Your task to perform on an android device: turn off notifications in google photos Image 0: 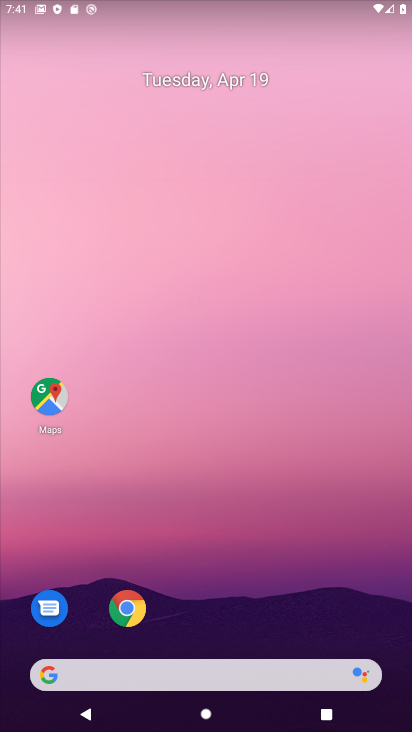
Step 0: click (395, 458)
Your task to perform on an android device: turn off notifications in google photos Image 1: 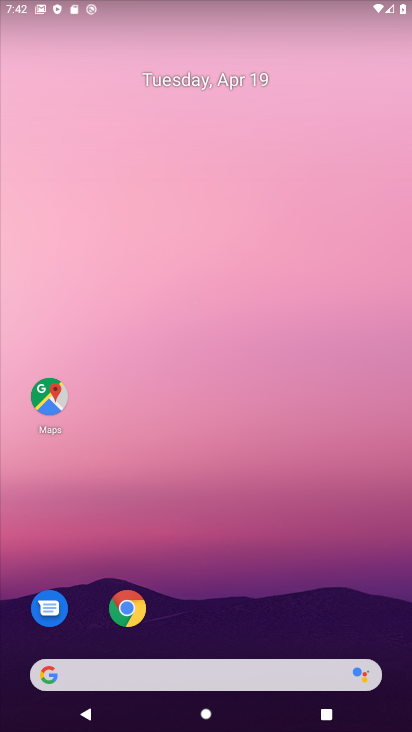
Step 1: drag from (328, 577) to (331, 245)
Your task to perform on an android device: turn off notifications in google photos Image 2: 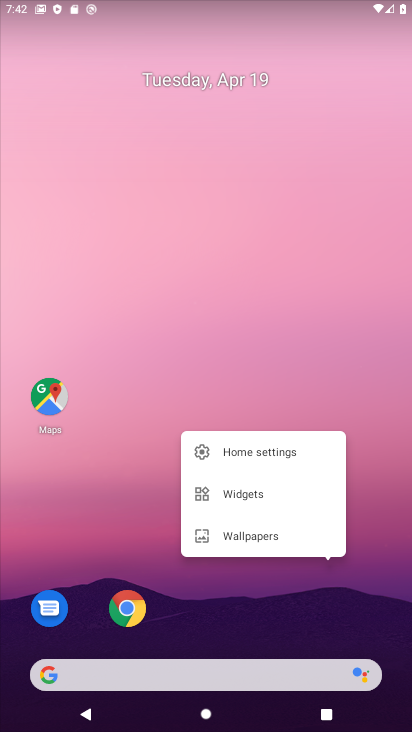
Step 2: drag from (147, 577) to (163, 303)
Your task to perform on an android device: turn off notifications in google photos Image 3: 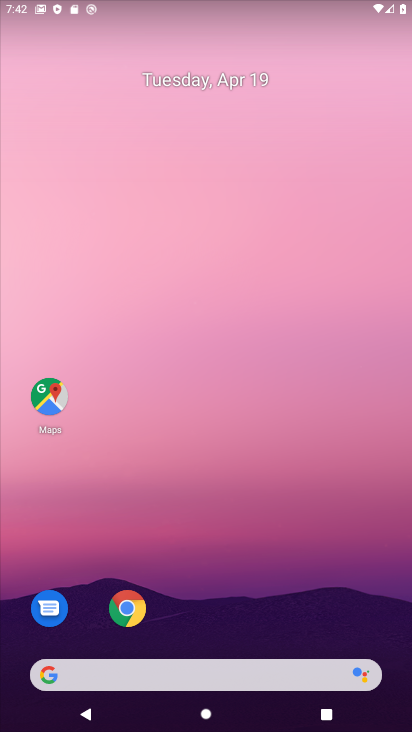
Step 3: drag from (257, 634) to (264, 155)
Your task to perform on an android device: turn off notifications in google photos Image 4: 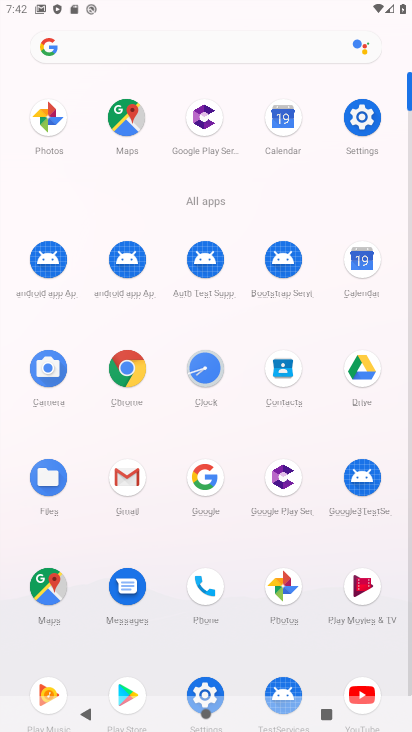
Step 4: click (264, 155)
Your task to perform on an android device: turn off notifications in google photos Image 5: 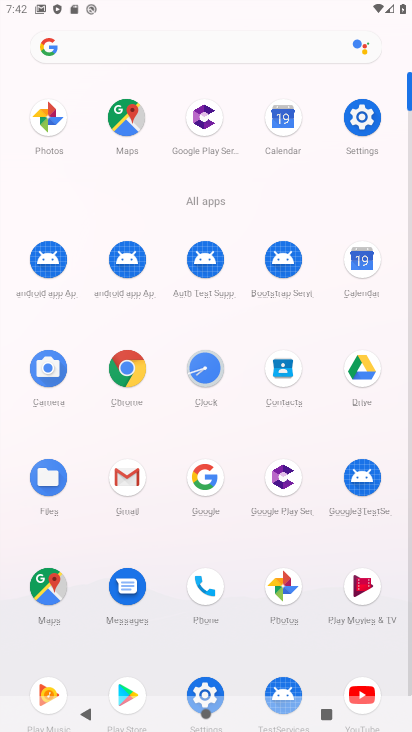
Step 5: click (264, 155)
Your task to perform on an android device: turn off notifications in google photos Image 6: 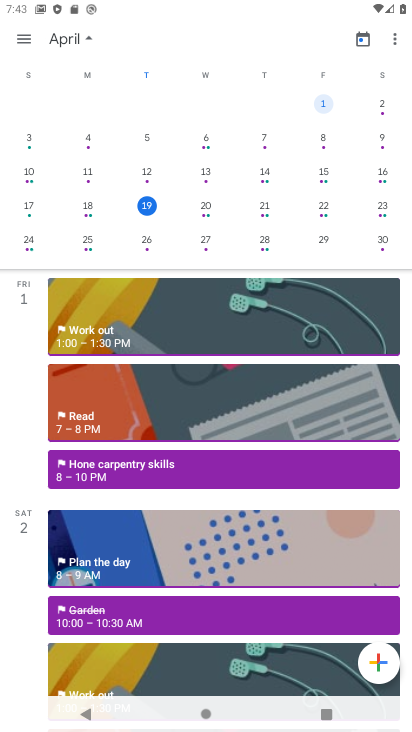
Step 6: press back button
Your task to perform on an android device: turn off notifications in google photos Image 7: 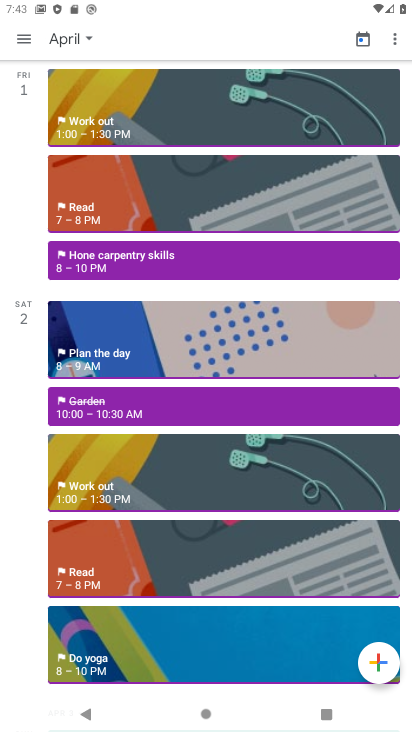
Step 7: press back button
Your task to perform on an android device: turn off notifications in google photos Image 8: 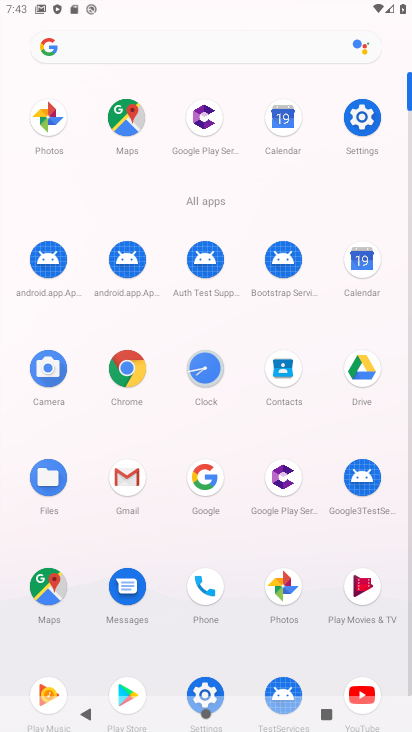
Step 8: click (58, 129)
Your task to perform on an android device: turn off notifications in google photos Image 9: 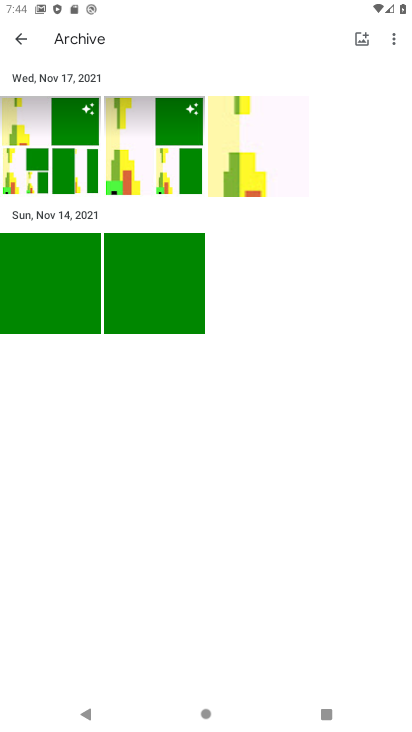
Step 9: click (24, 48)
Your task to perform on an android device: turn off notifications in google photos Image 10: 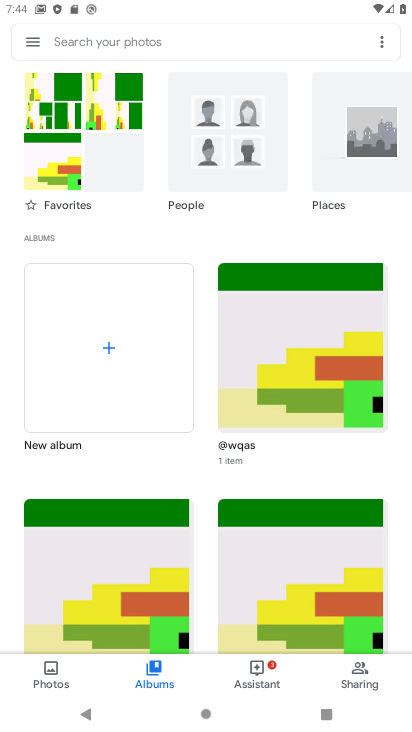
Step 10: click (34, 45)
Your task to perform on an android device: turn off notifications in google photos Image 11: 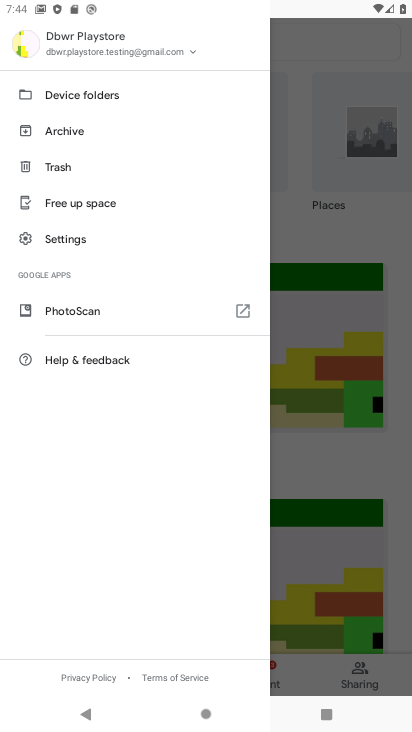
Step 11: click (62, 237)
Your task to perform on an android device: turn off notifications in google photos Image 12: 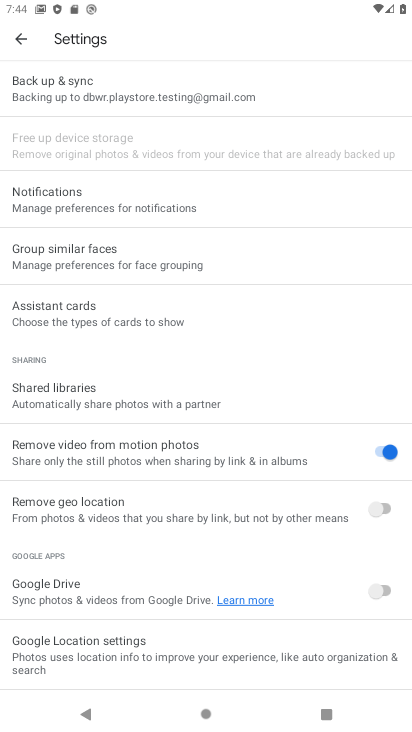
Step 12: click (66, 214)
Your task to perform on an android device: turn off notifications in google photos Image 13: 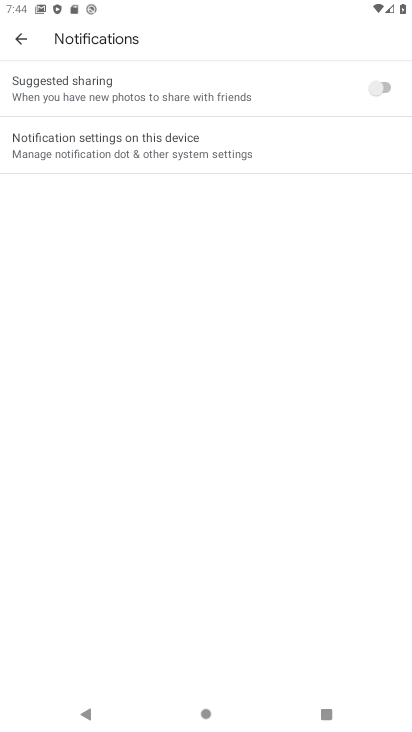
Step 13: click (374, 78)
Your task to perform on an android device: turn off notifications in google photos Image 14: 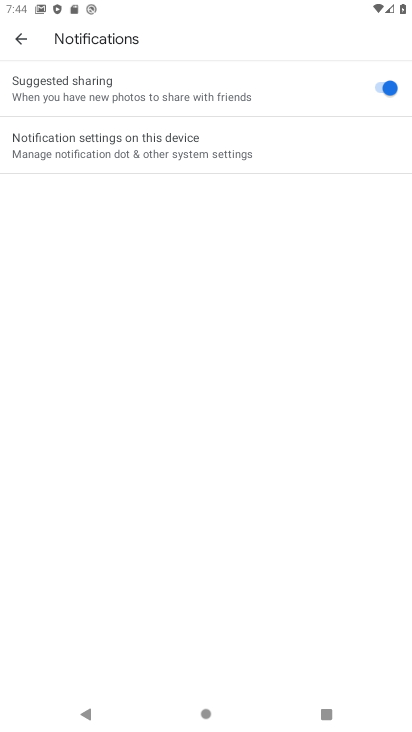
Step 14: task complete